Your task to perform on an android device: visit the assistant section in the google photos Image 0: 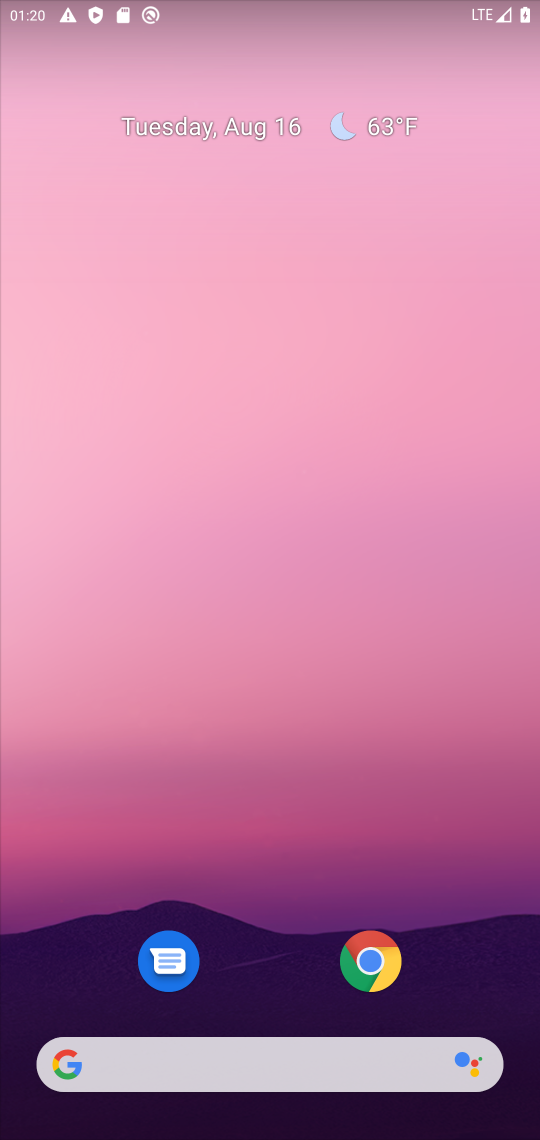
Step 0: drag from (240, 949) to (76, 190)
Your task to perform on an android device: visit the assistant section in the google photos Image 1: 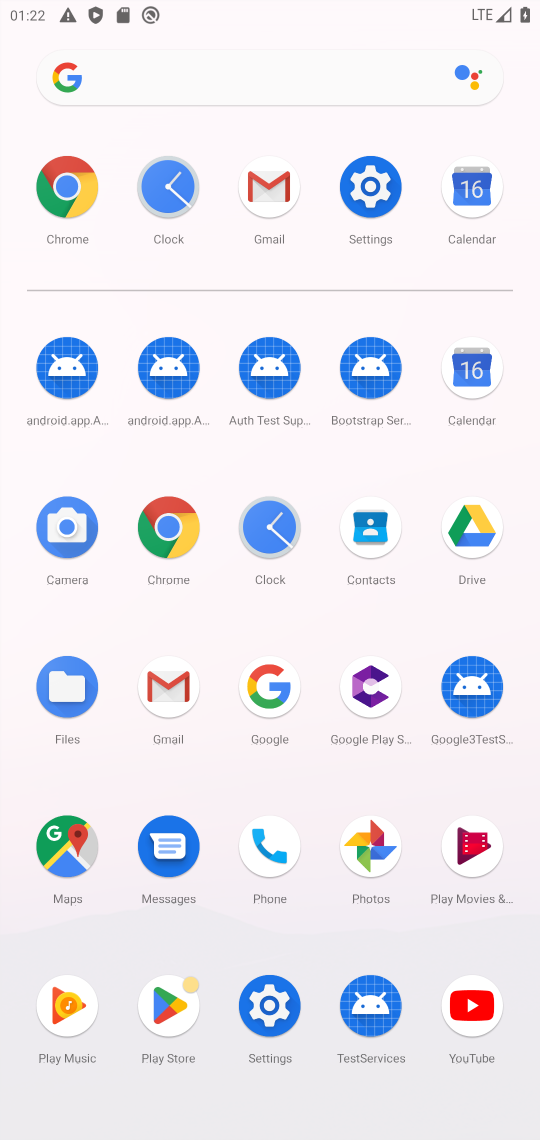
Step 1: click (373, 850)
Your task to perform on an android device: visit the assistant section in the google photos Image 2: 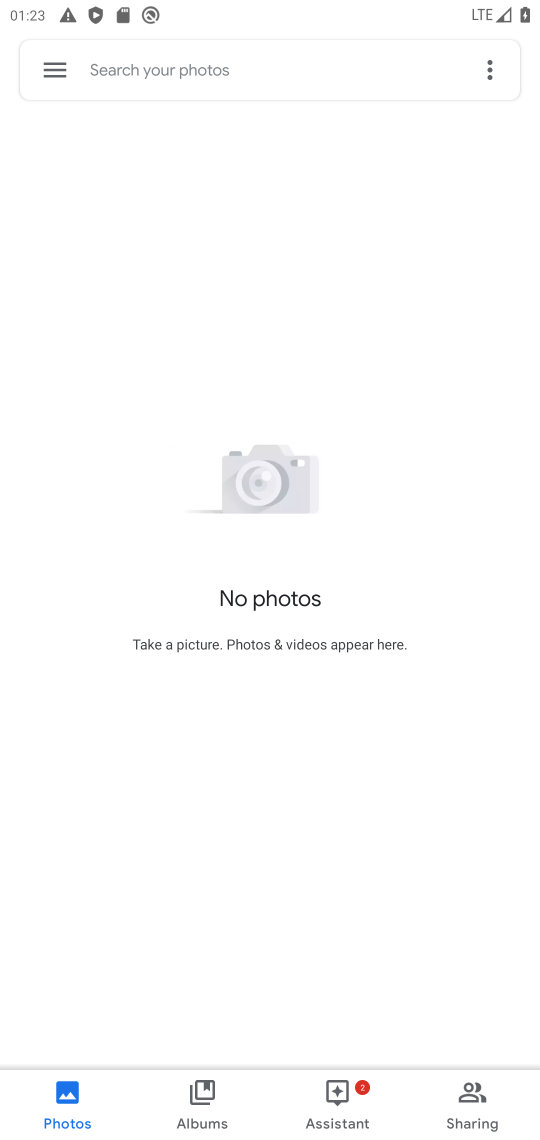
Step 2: click (344, 1111)
Your task to perform on an android device: visit the assistant section in the google photos Image 3: 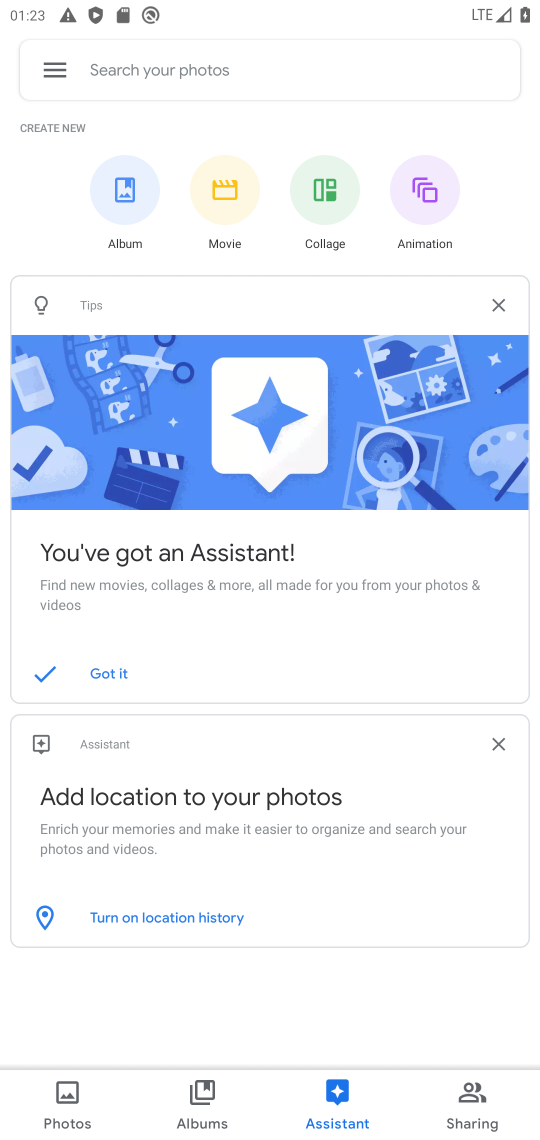
Step 3: task complete